Your task to perform on an android device: delete the emails in spam in the gmail app Image 0: 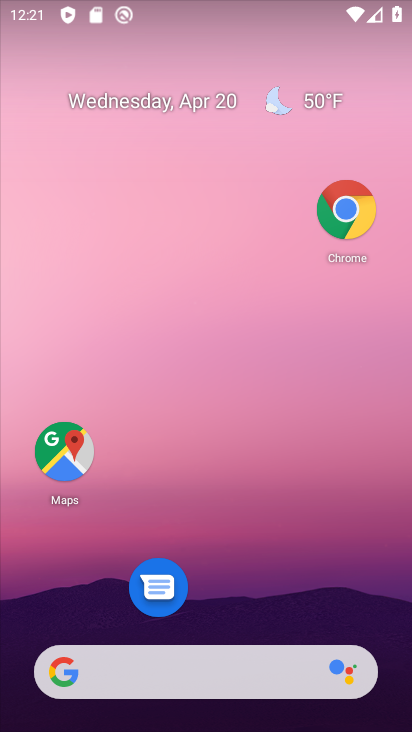
Step 0: drag from (266, 514) to (315, 32)
Your task to perform on an android device: delete the emails in spam in the gmail app Image 1: 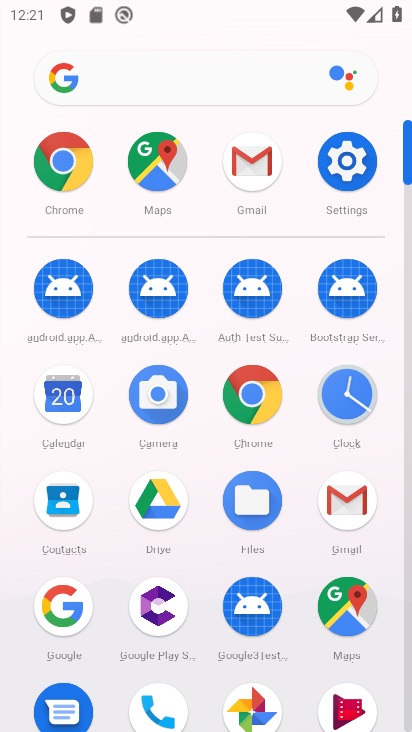
Step 1: click (344, 500)
Your task to perform on an android device: delete the emails in spam in the gmail app Image 2: 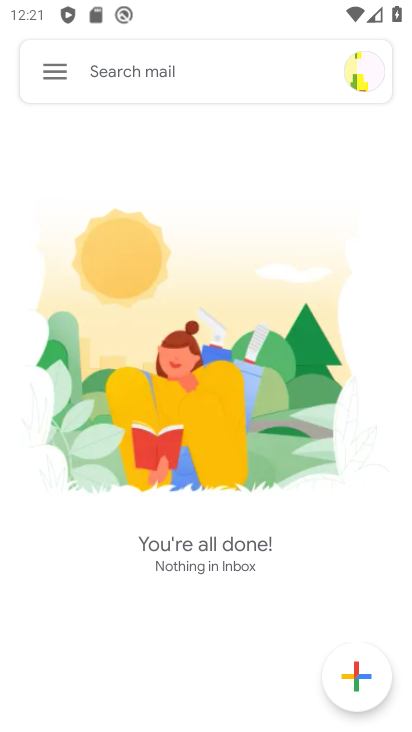
Step 2: click (39, 61)
Your task to perform on an android device: delete the emails in spam in the gmail app Image 3: 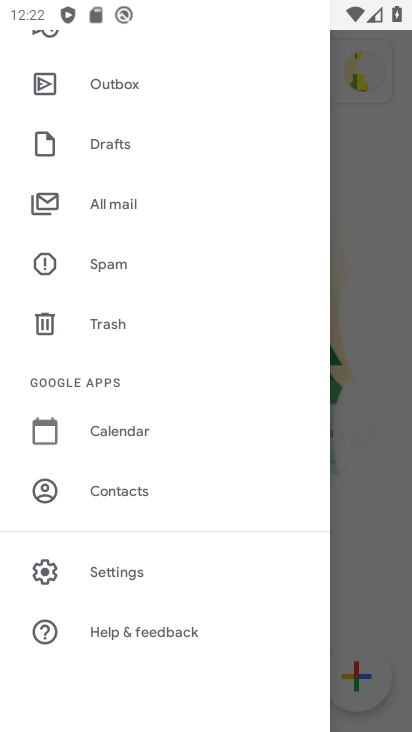
Step 3: click (108, 264)
Your task to perform on an android device: delete the emails in spam in the gmail app Image 4: 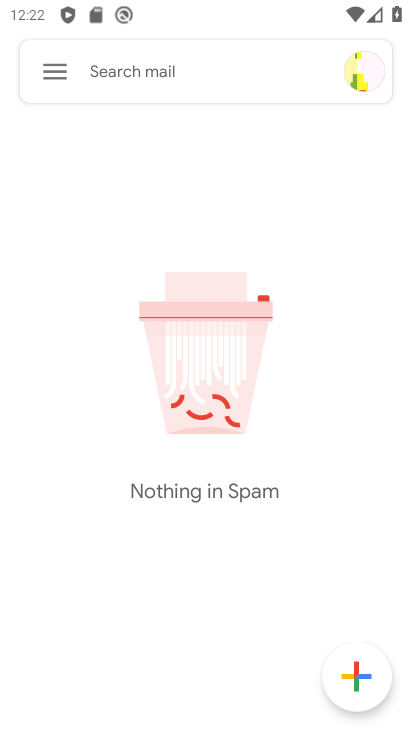
Step 4: task complete